Your task to perform on an android device: turn vacation reply on in the gmail app Image 0: 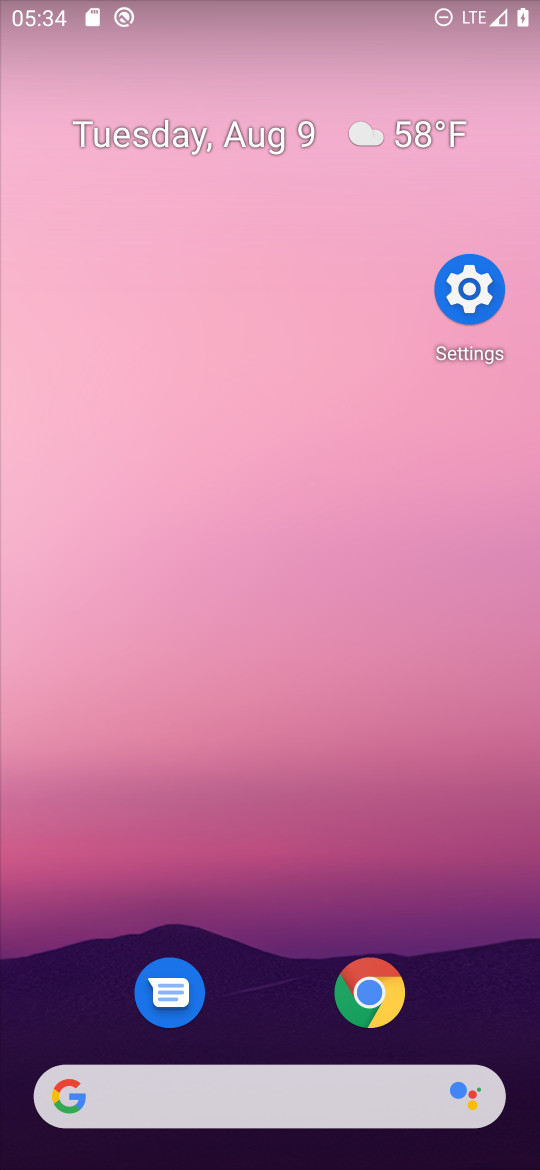
Step 0: drag from (311, 1071) to (224, 476)
Your task to perform on an android device: turn vacation reply on in the gmail app Image 1: 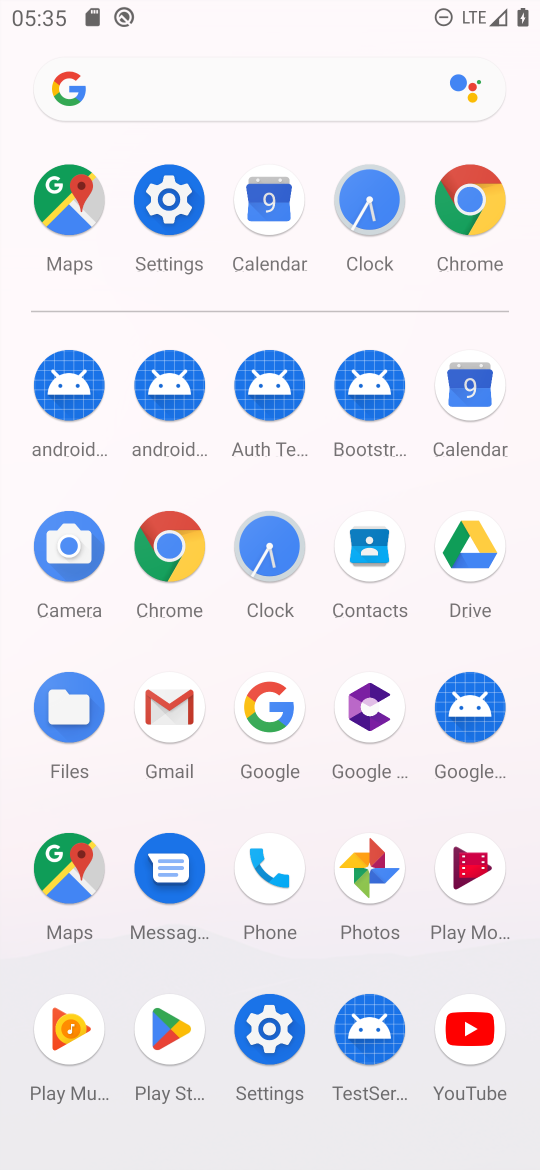
Step 1: click (177, 727)
Your task to perform on an android device: turn vacation reply on in the gmail app Image 2: 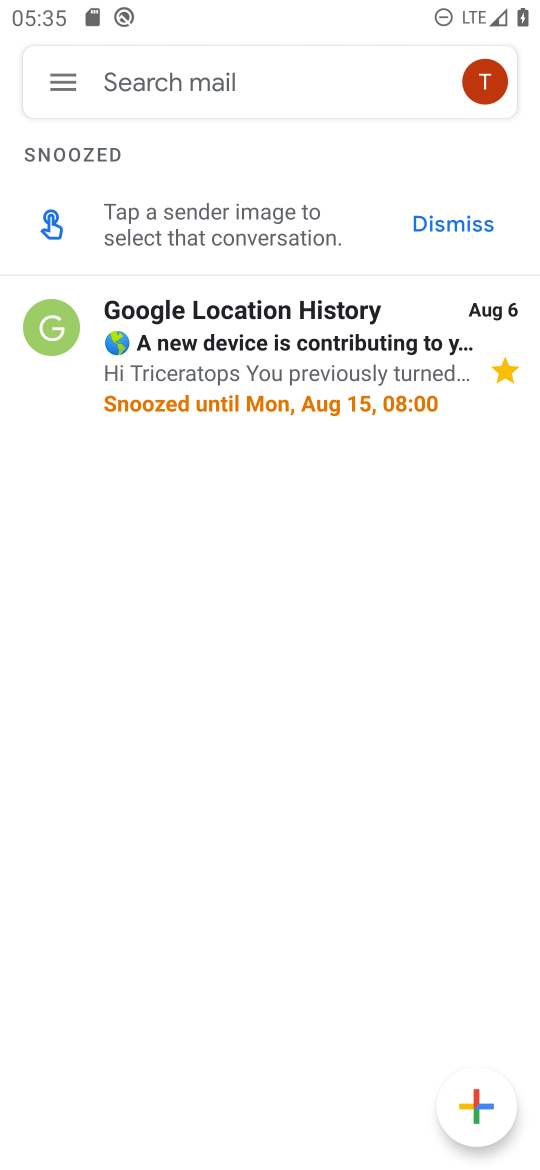
Step 2: click (48, 83)
Your task to perform on an android device: turn vacation reply on in the gmail app Image 3: 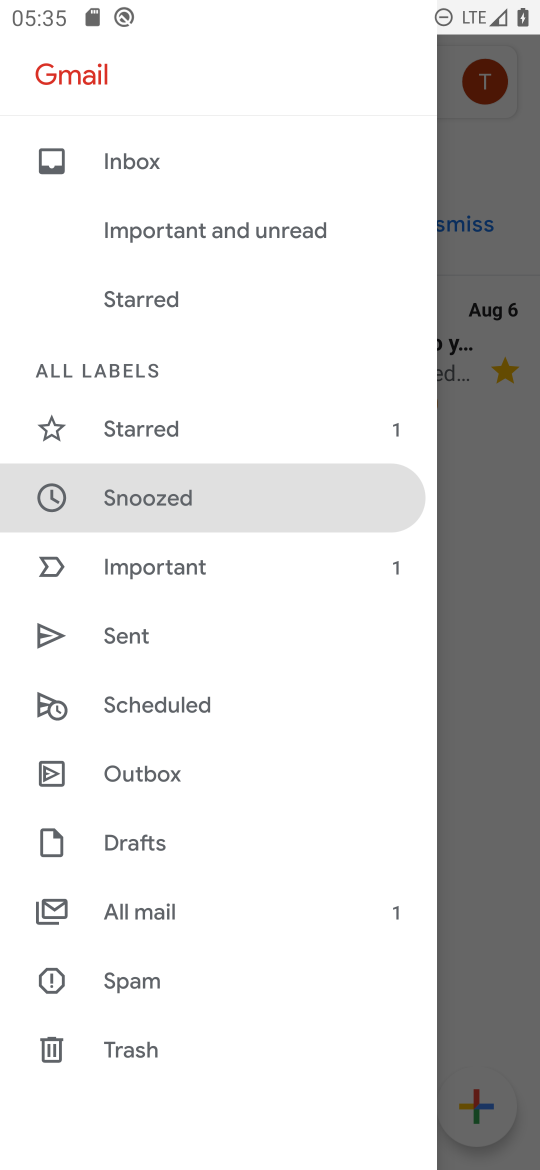
Step 3: drag from (271, 1015) to (383, 170)
Your task to perform on an android device: turn vacation reply on in the gmail app Image 4: 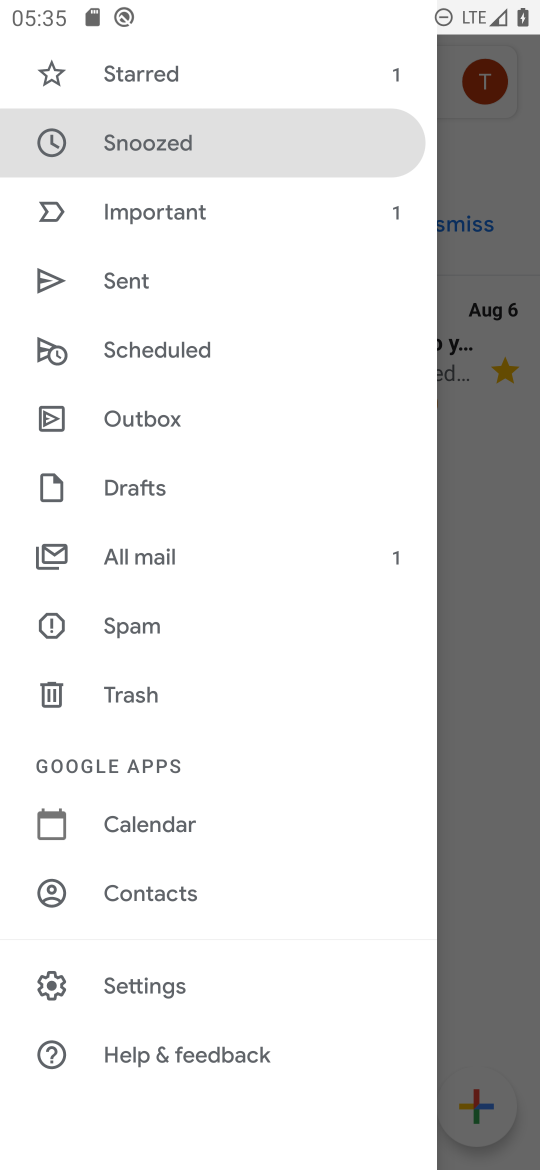
Step 4: click (178, 985)
Your task to perform on an android device: turn vacation reply on in the gmail app Image 5: 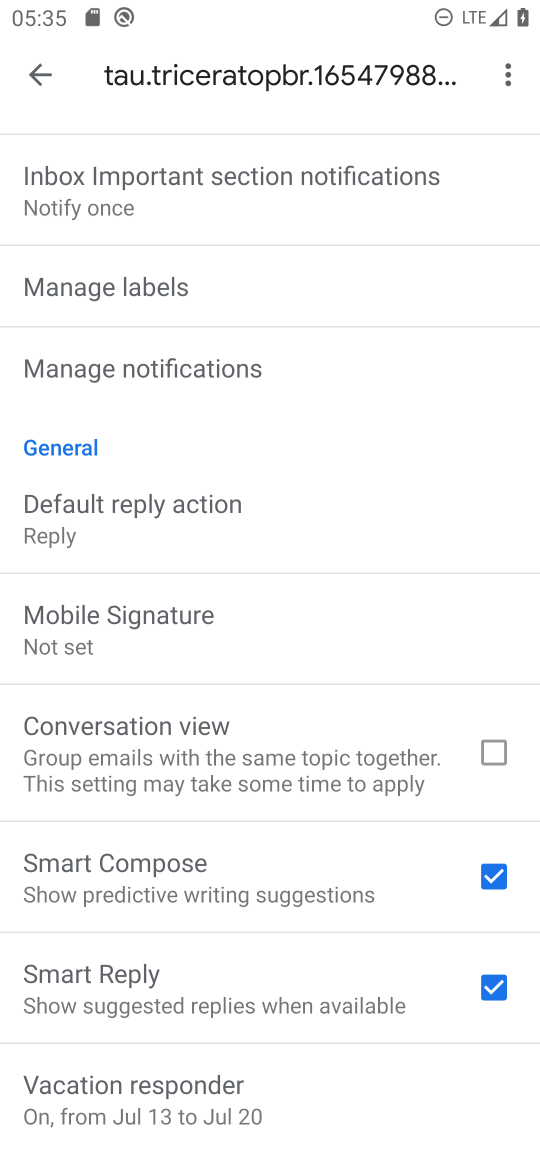
Step 5: click (253, 1074)
Your task to perform on an android device: turn vacation reply on in the gmail app Image 6: 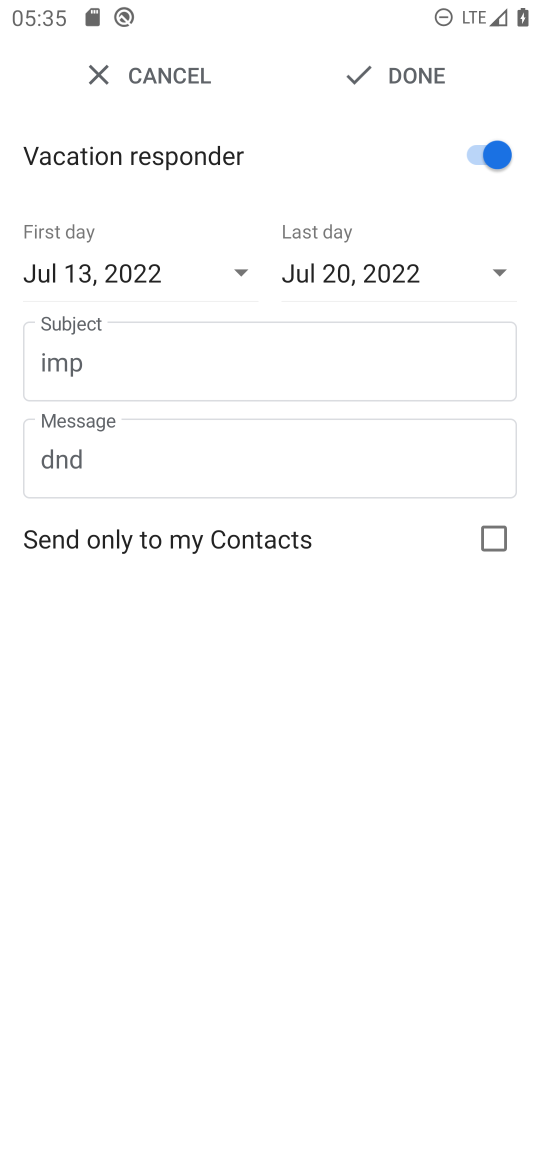
Step 6: click (418, 72)
Your task to perform on an android device: turn vacation reply on in the gmail app Image 7: 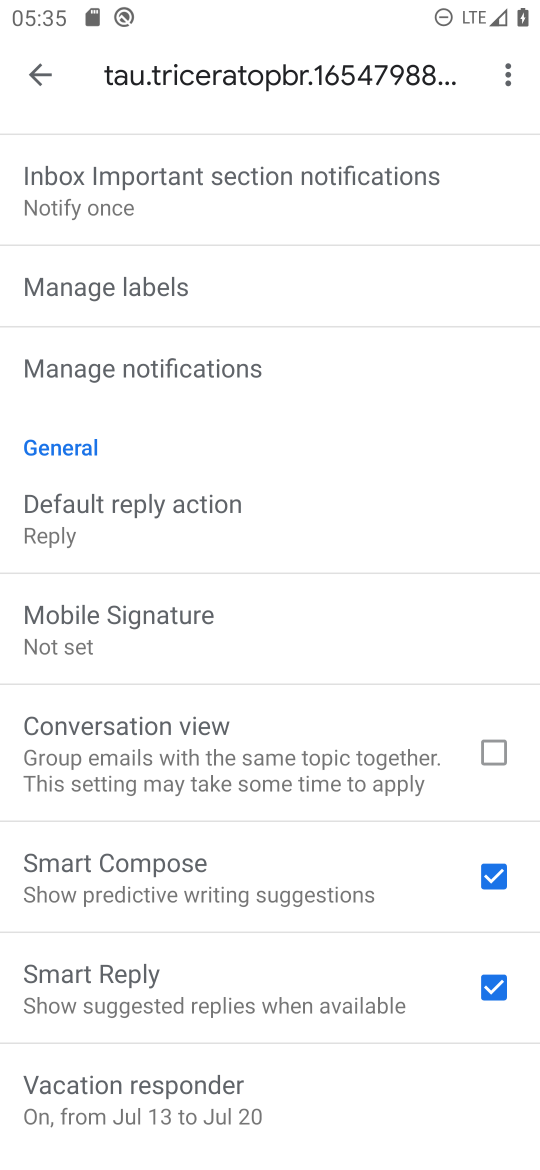
Step 7: task complete